Your task to perform on an android device: Open the calendar app, open the side menu, and click the "Day" option Image 0: 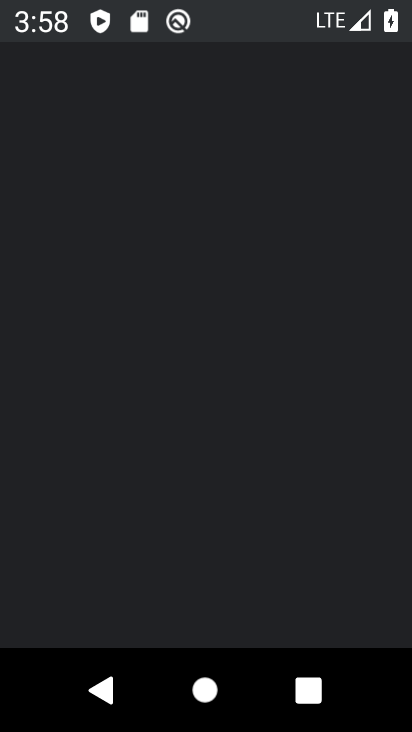
Step 0: drag from (17, 558) to (187, 121)
Your task to perform on an android device: Open the calendar app, open the side menu, and click the "Day" option Image 1: 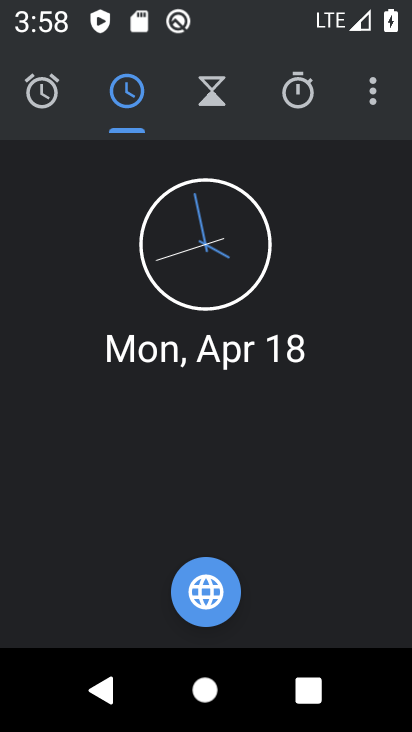
Step 1: press home button
Your task to perform on an android device: Open the calendar app, open the side menu, and click the "Day" option Image 2: 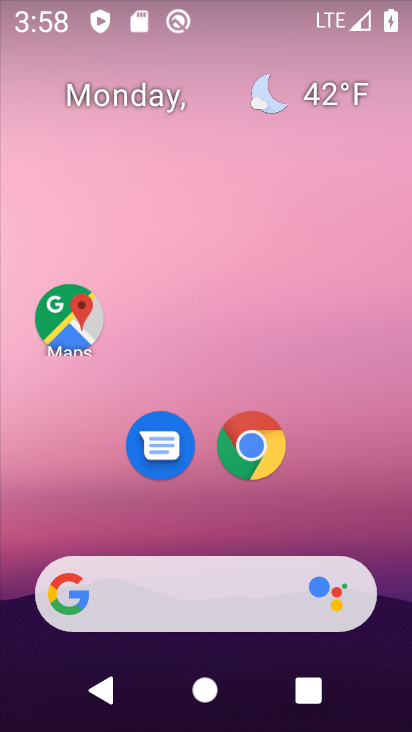
Step 2: drag from (0, 562) to (214, 135)
Your task to perform on an android device: Open the calendar app, open the side menu, and click the "Day" option Image 3: 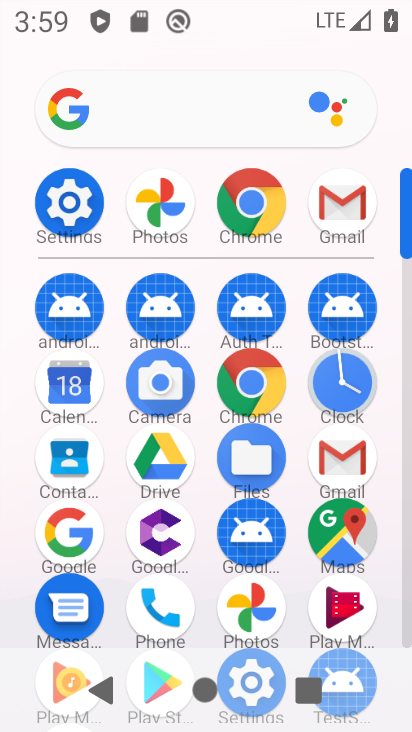
Step 3: click (406, 642)
Your task to perform on an android device: Open the calendar app, open the side menu, and click the "Day" option Image 4: 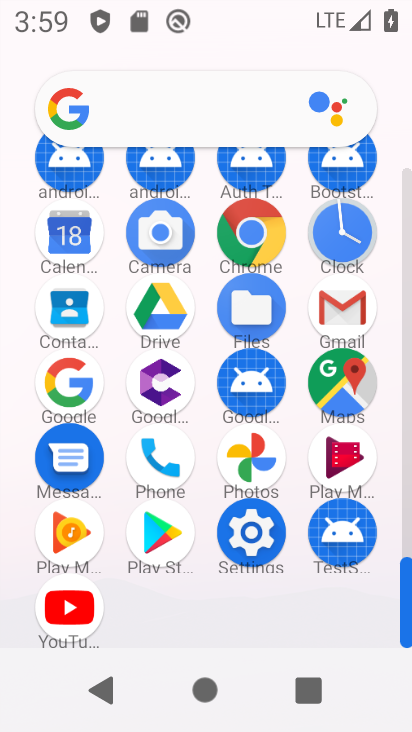
Step 4: click (62, 229)
Your task to perform on an android device: Open the calendar app, open the side menu, and click the "Day" option Image 5: 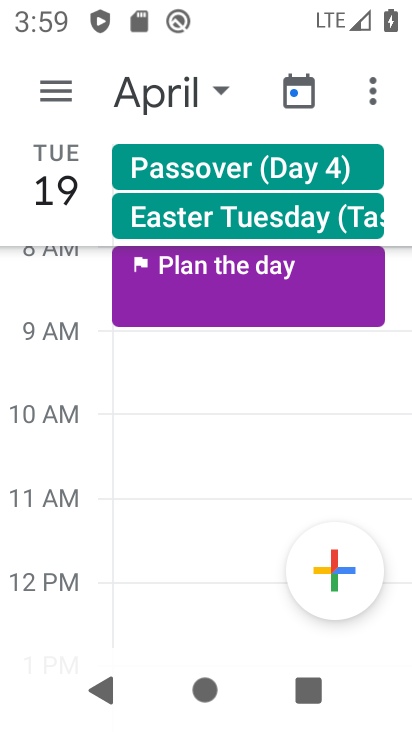
Step 5: click (55, 93)
Your task to perform on an android device: Open the calendar app, open the side menu, and click the "Day" option Image 6: 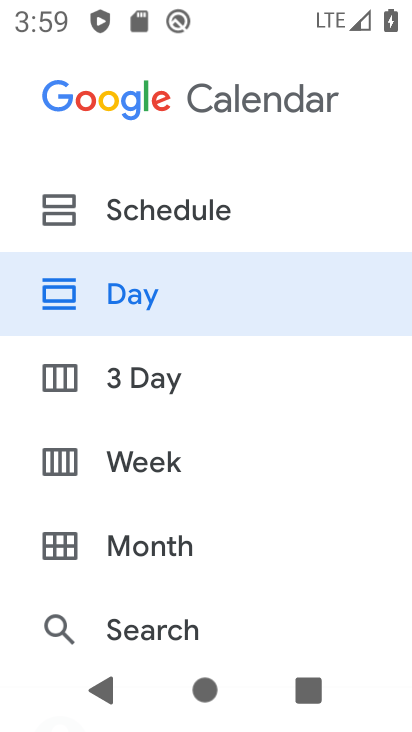
Step 6: click (193, 314)
Your task to perform on an android device: Open the calendar app, open the side menu, and click the "Day" option Image 7: 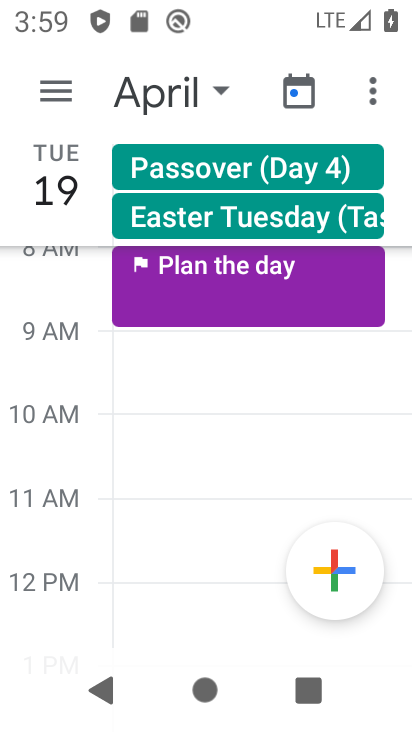
Step 7: task complete